Your task to perform on an android device: Open the calendar app, open the side menu, and click the "Day" option Image 0: 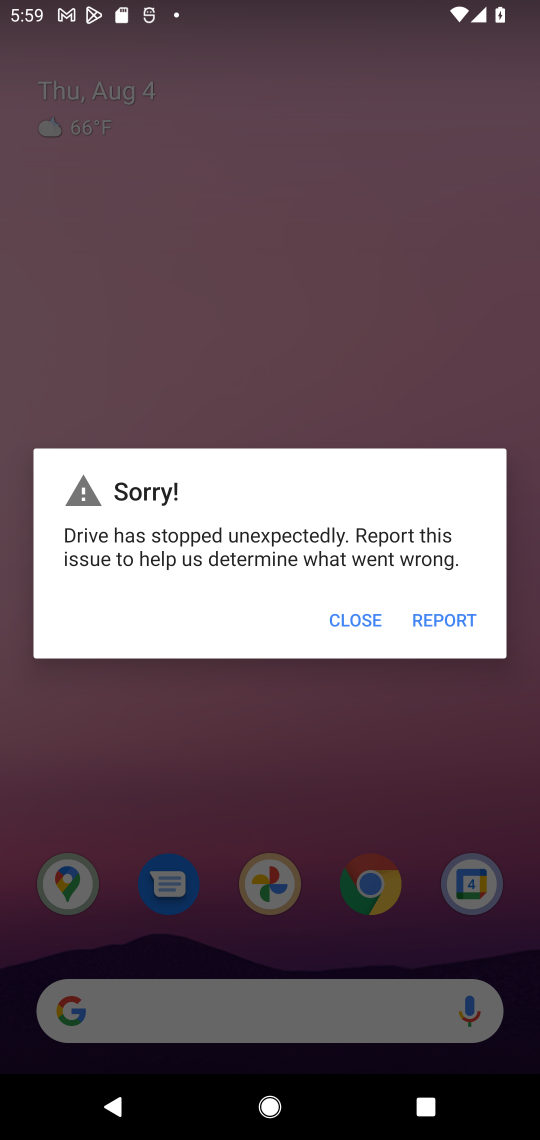
Step 0: click (371, 595)
Your task to perform on an android device: Open the calendar app, open the side menu, and click the "Day" option Image 1: 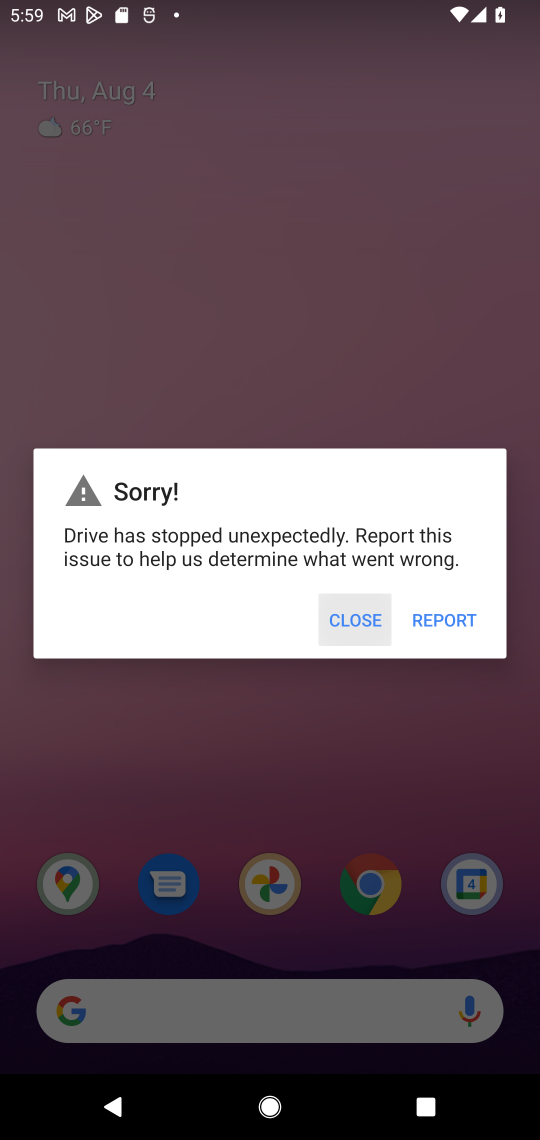
Step 1: click (366, 610)
Your task to perform on an android device: Open the calendar app, open the side menu, and click the "Day" option Image 2: 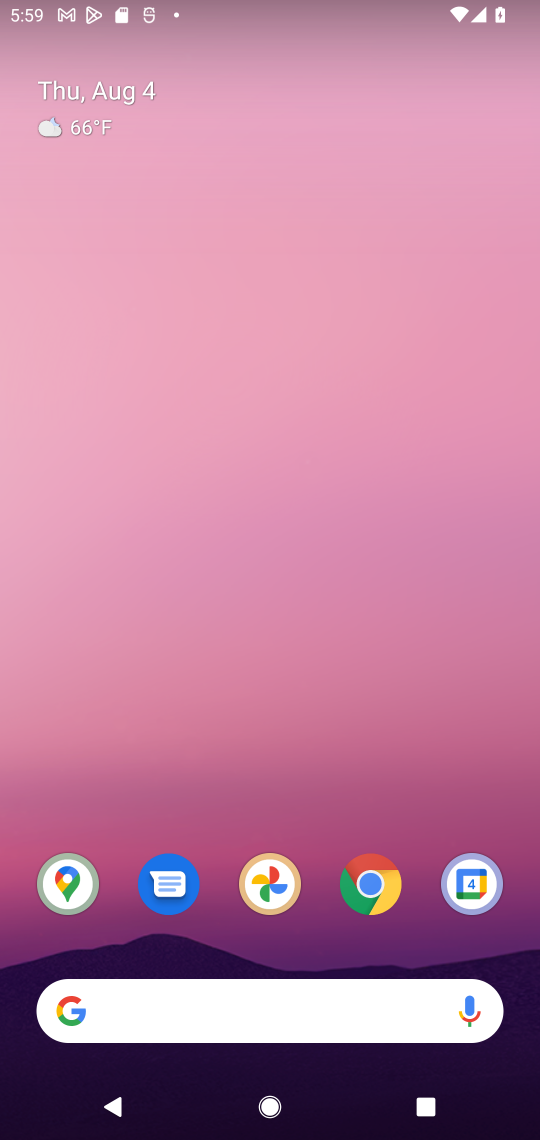
Step 2: click (458, 899)
Your task to perform on an android device: Open the calendar app, open the side menu, and click the "Day" option Image 3: 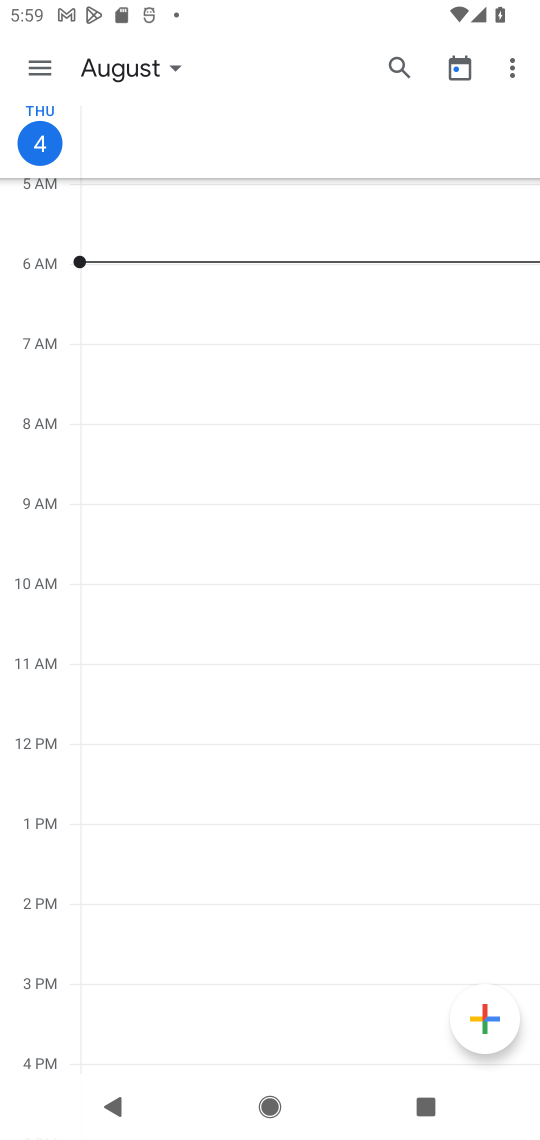
Step 3: task complete